Your task to perform on an android device: set the timer Image 0: 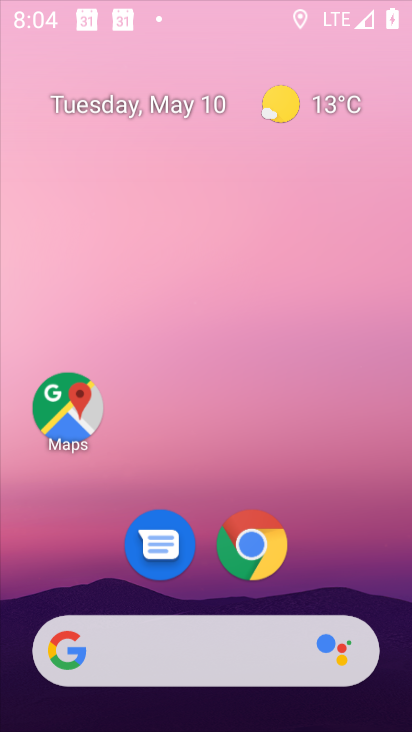
Step 0: click (238, 55)
Your task to perform on an android device: set the timer Image 1: 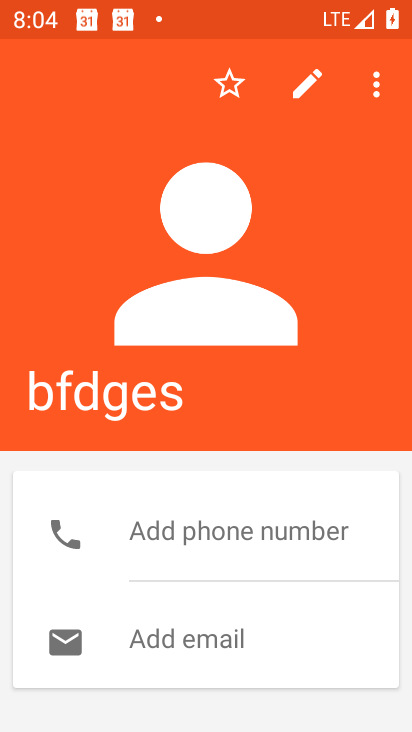
Step 1: press home button
Your task to perform on an android device: set the timer Image 2: 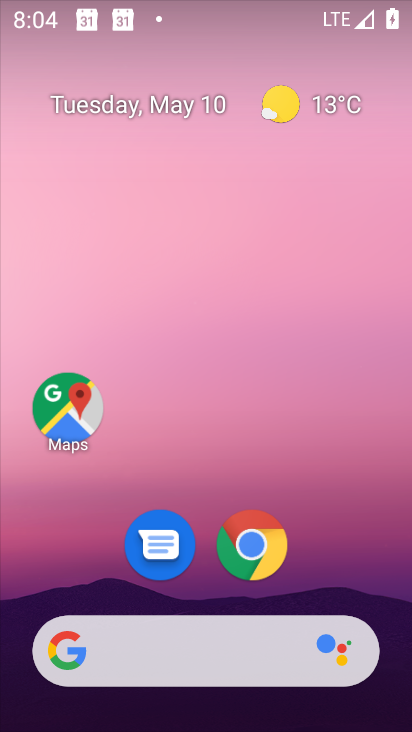
Step 2: drag from (312, 553) to (347, 92)
Your task to perform on an android device: set the timer Image 3: 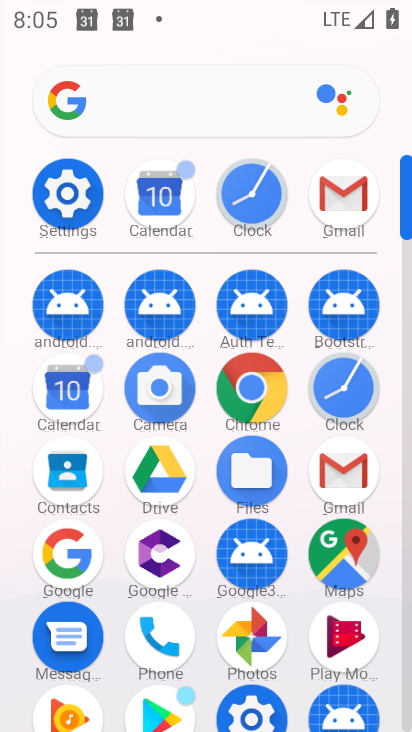
Step 3: click (250, 187)
Your task to perform on an android device: set the timer Image 4: 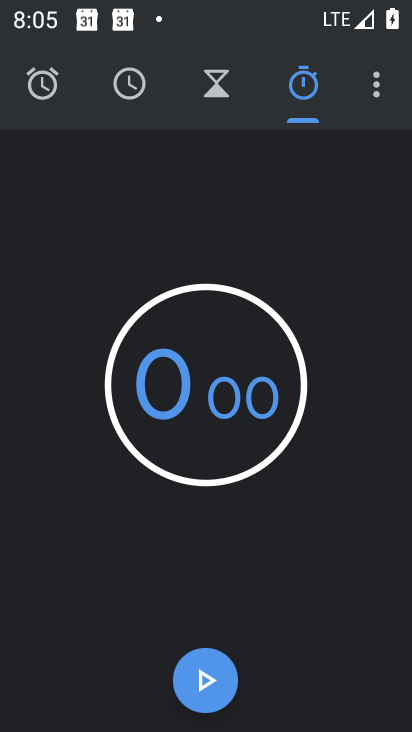
Step 4: click (221, 82)
Your task to perform on an android device: set the timer Image 5: 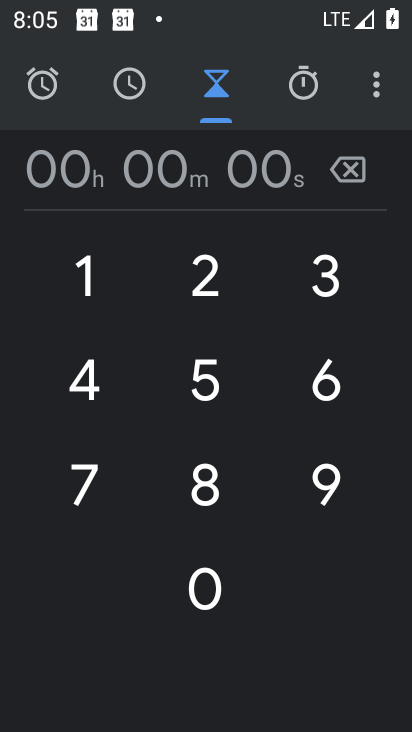
Step 5: click (208, 273)
Your task to perform on an android device: set the timer Image 6: 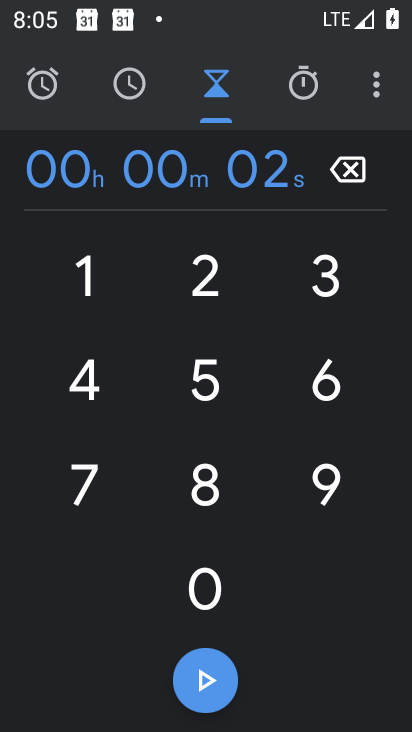
Step 6: click (217, 590)
Your task to perform on an android device: set the timer Image 7: 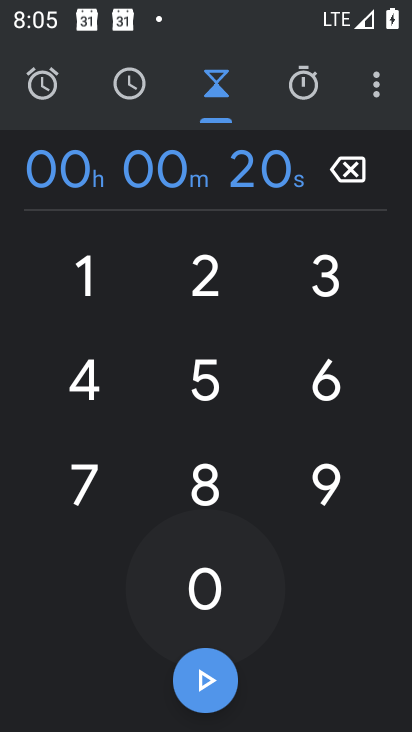
Step 7: click (219, 585)
Your task to perform on an android device: set the timer Image 8: 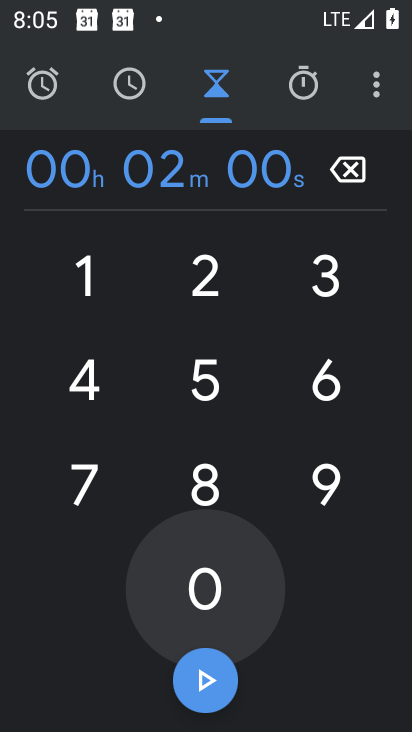
Step 8: click (219, 585)
Your task to perform on an android device: set the timer Image 9: 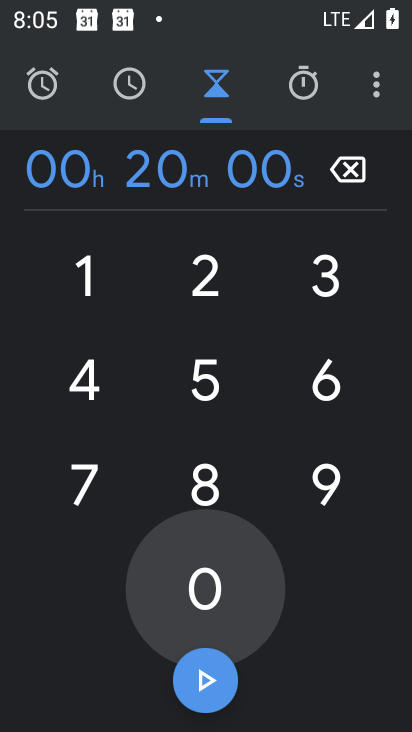
Step 9: click (219, 585)
Your task to perform on an android device: set the timer Image 10: 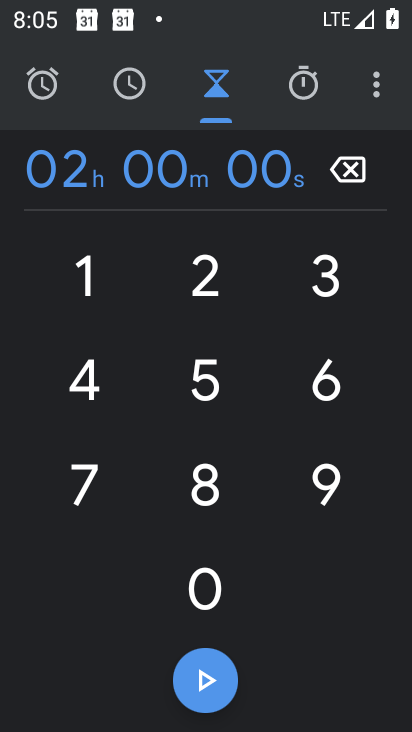
Step 10: click (343, 190)
Your task to perform on an android device: set the timer Image 11: 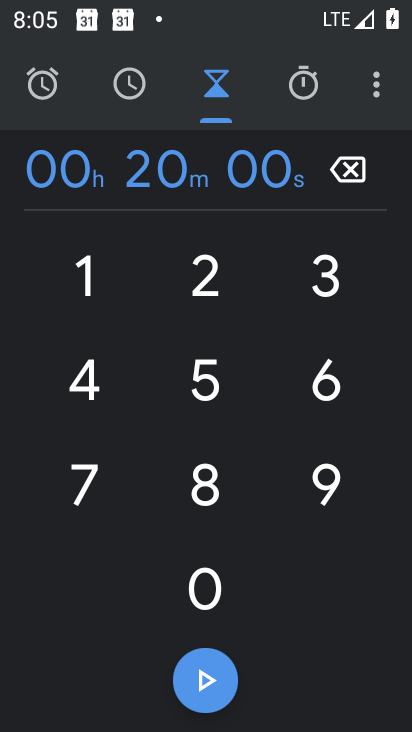
Step 11: click (219, 690)
Your task to perform on an android device: set the timer Image 12: 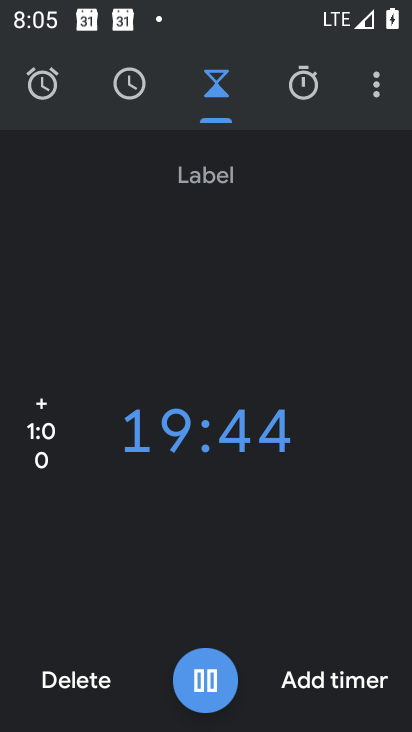
Step 12: task complete